Your task to perform on an android device: empty trash in google photos Image 0: 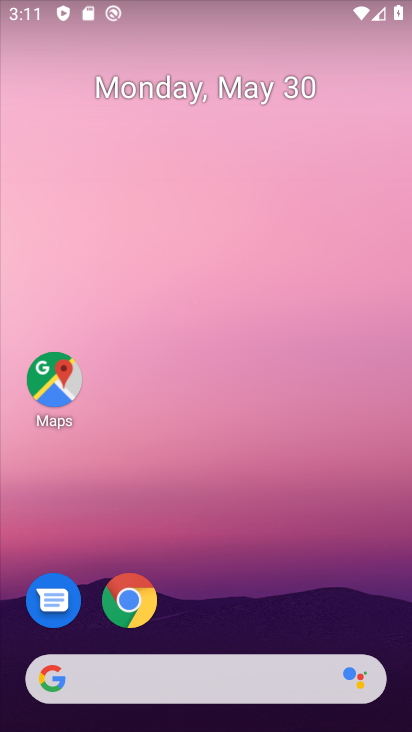
Step 0: drag from (262, 609) to (218, 255)
Your task to perform on an android device: empty trash in google photos Image 1: 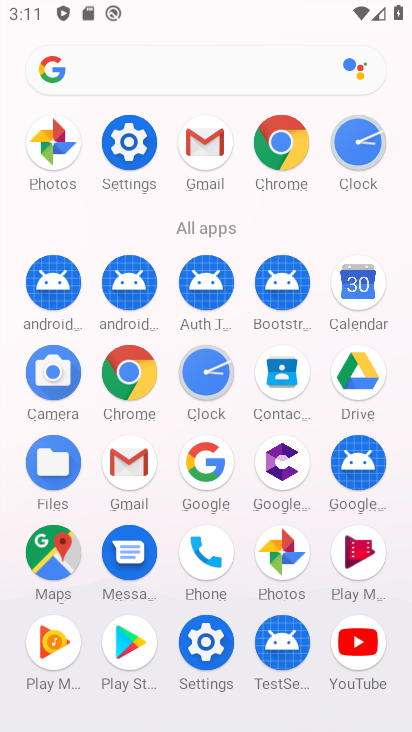
Step 1: click (58, 153)
Your task to perform on an android device: empty trash in google photos Image 2: 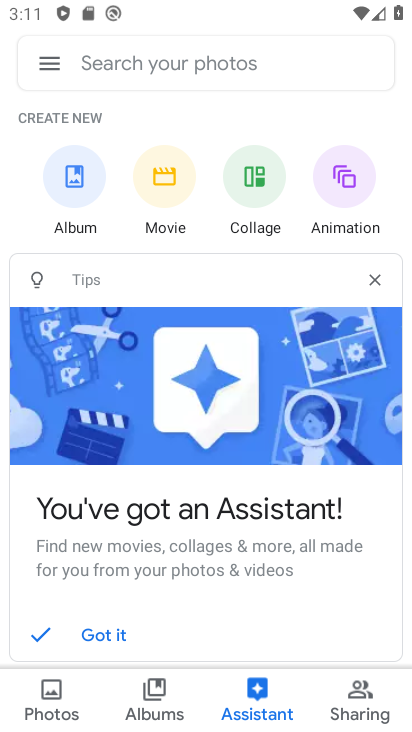
Step 2: click (48, 81)
Your task to perform on an android device: empty trash in google photos Image 3: 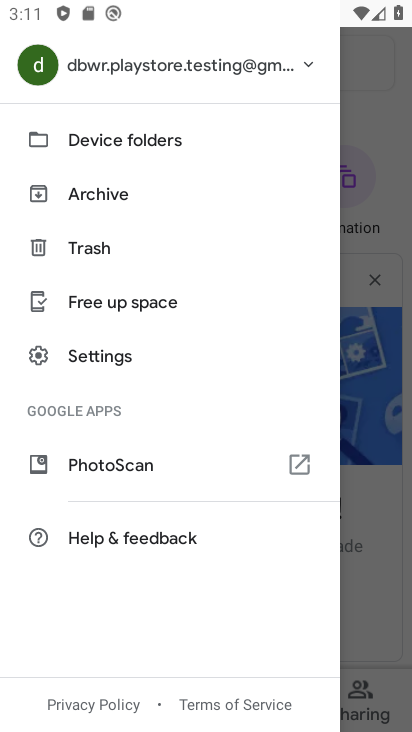
Step 3: click (97, 253)
Your task to perform on an android device: empty trash in google photos Image 4: 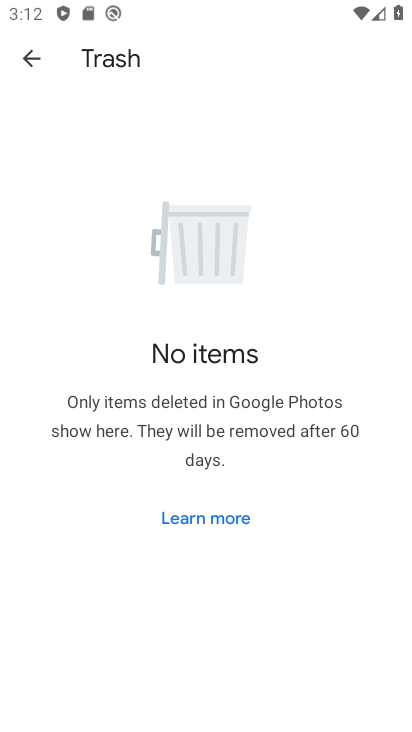
Step 4: task complete